Your task to perform on an android device: Search for sony triple a on newegg.com, select the first entry, and add it to the cart. Image 0: 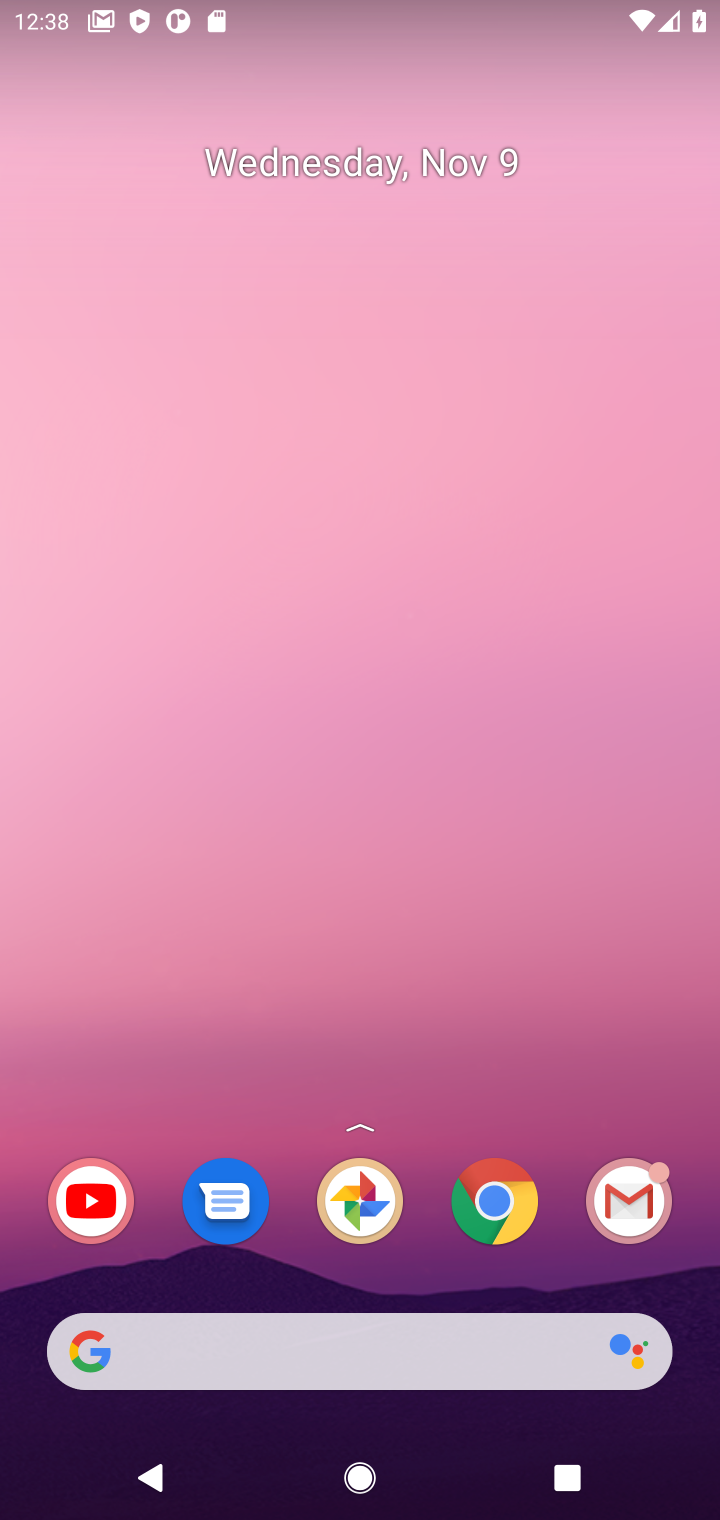
Step 0: click (339, 1346)
Your task to perform on an android device: Search for sony triple a on newegg.com, select the first entry, and add it to the cart. Image 1: 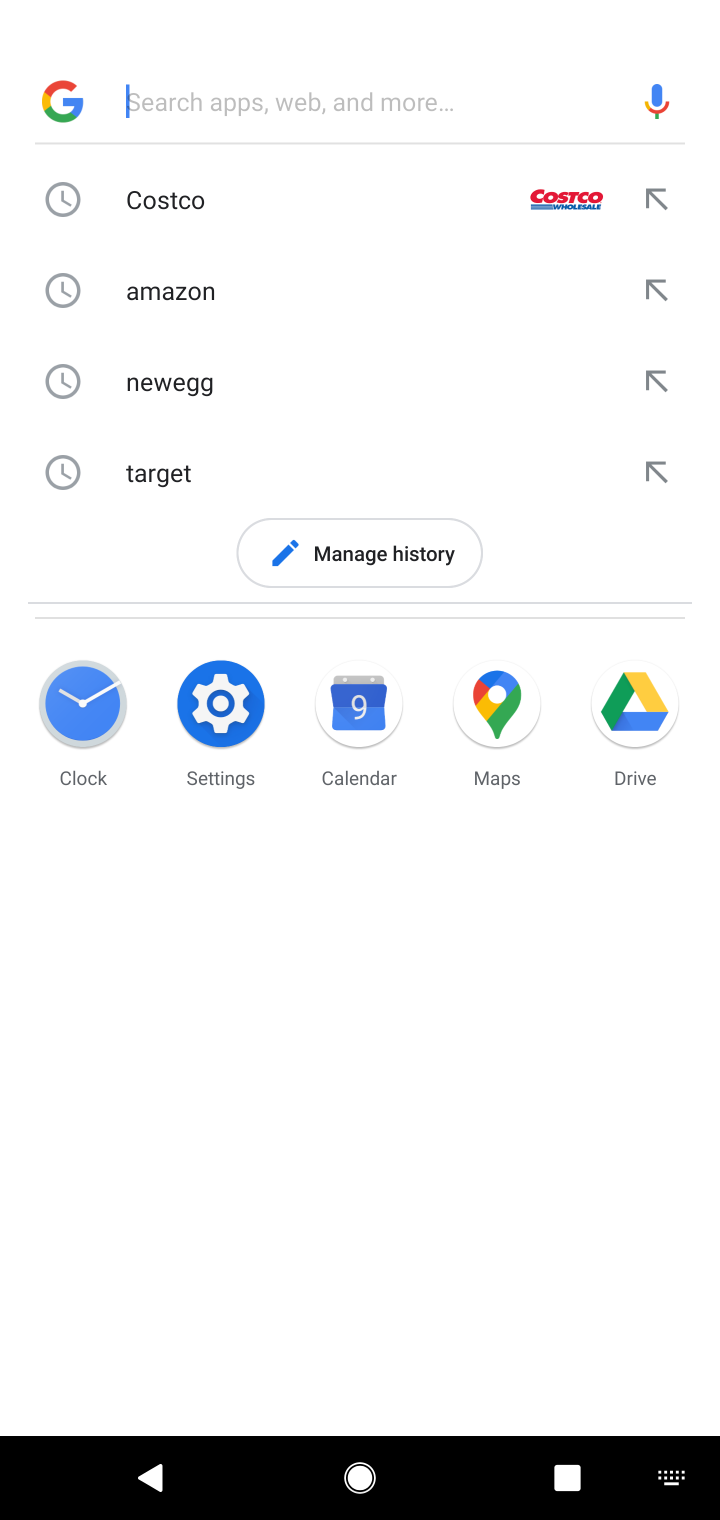
Step 1: type "newegg.com"
Your task to perform on an android device: Search for sony triple a on newegg.com, select the first entry, and add it to the cart. Image 2: 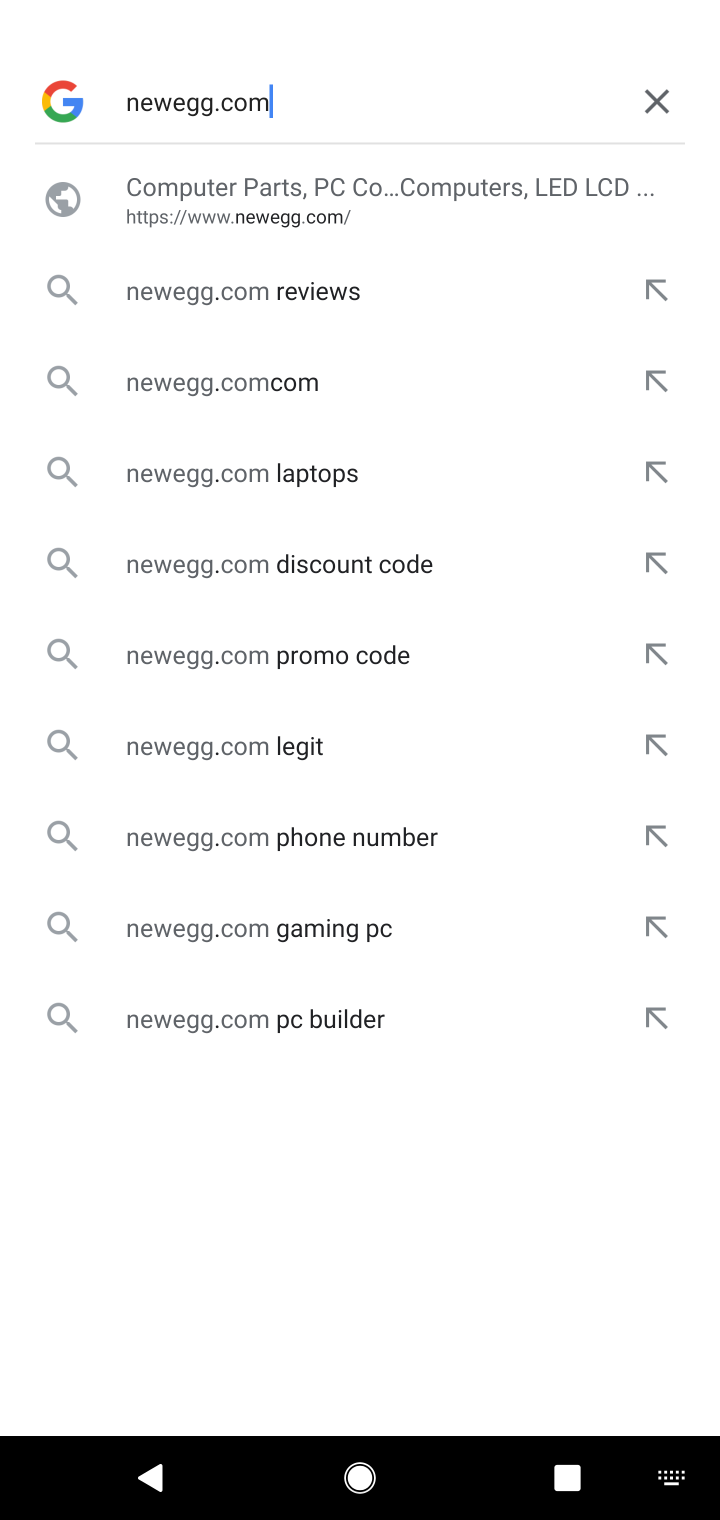
Step 2: click (302, 205)
Your task to perform on an android device: Search for sony triple a on newegg.com, select the first entry, and add it to the cart. Image 3: 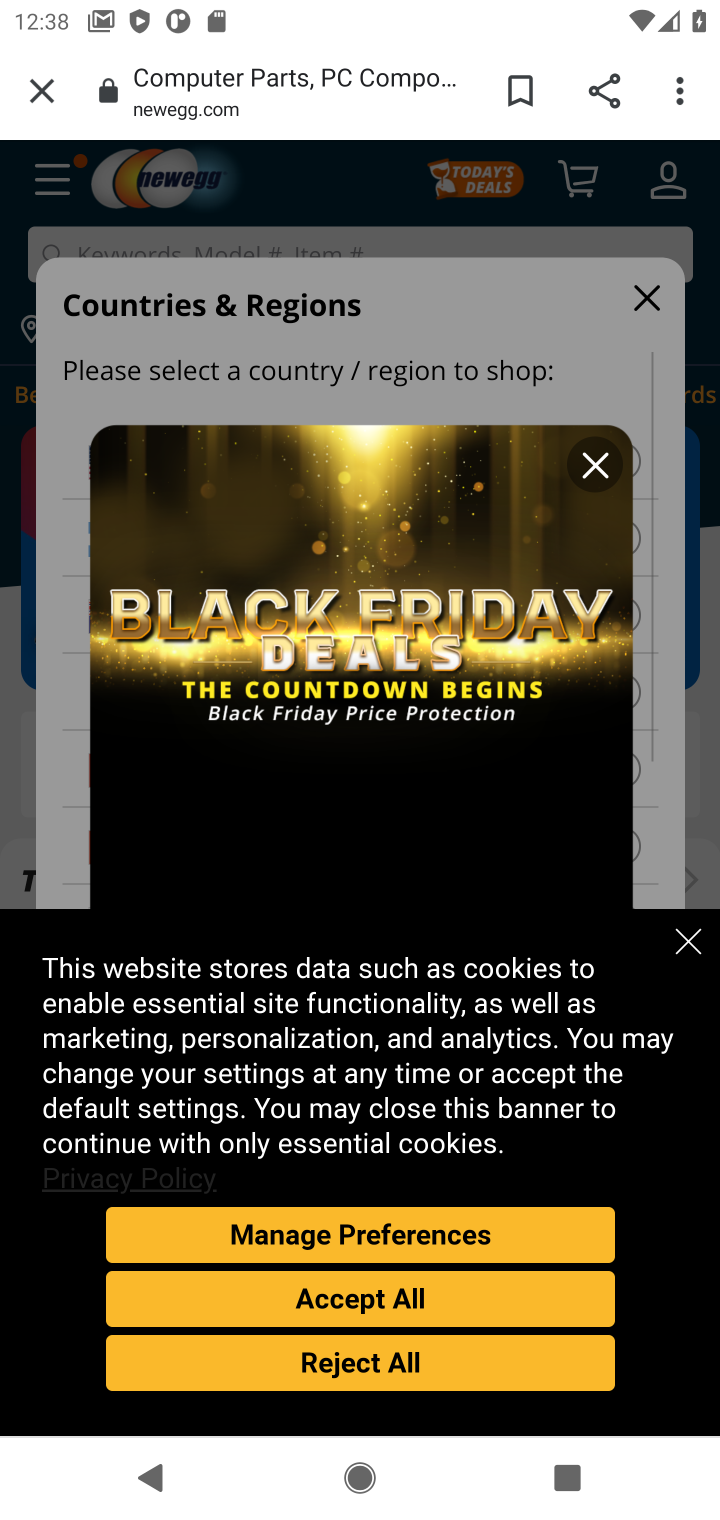
Step 3: click (684, 936)
Your task to perform on an android device: Search for sony triple a on newegg.com, select the first entry, and add it to the cart. Image 4: 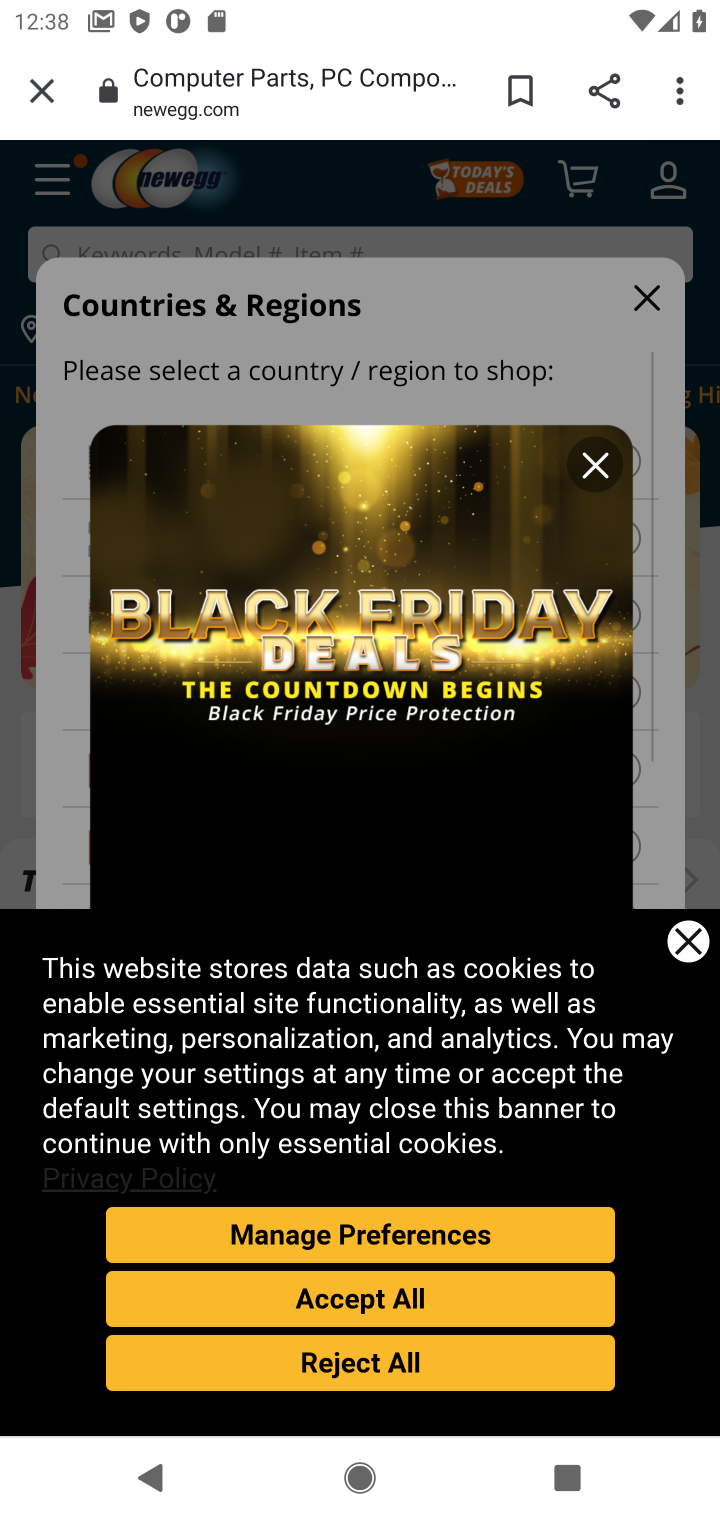
Step 4: click (645, 305)
Your task to perform on an android device: Search for sony triple a on newegg.com, select the first entry, and add it to the cart. Image 5: 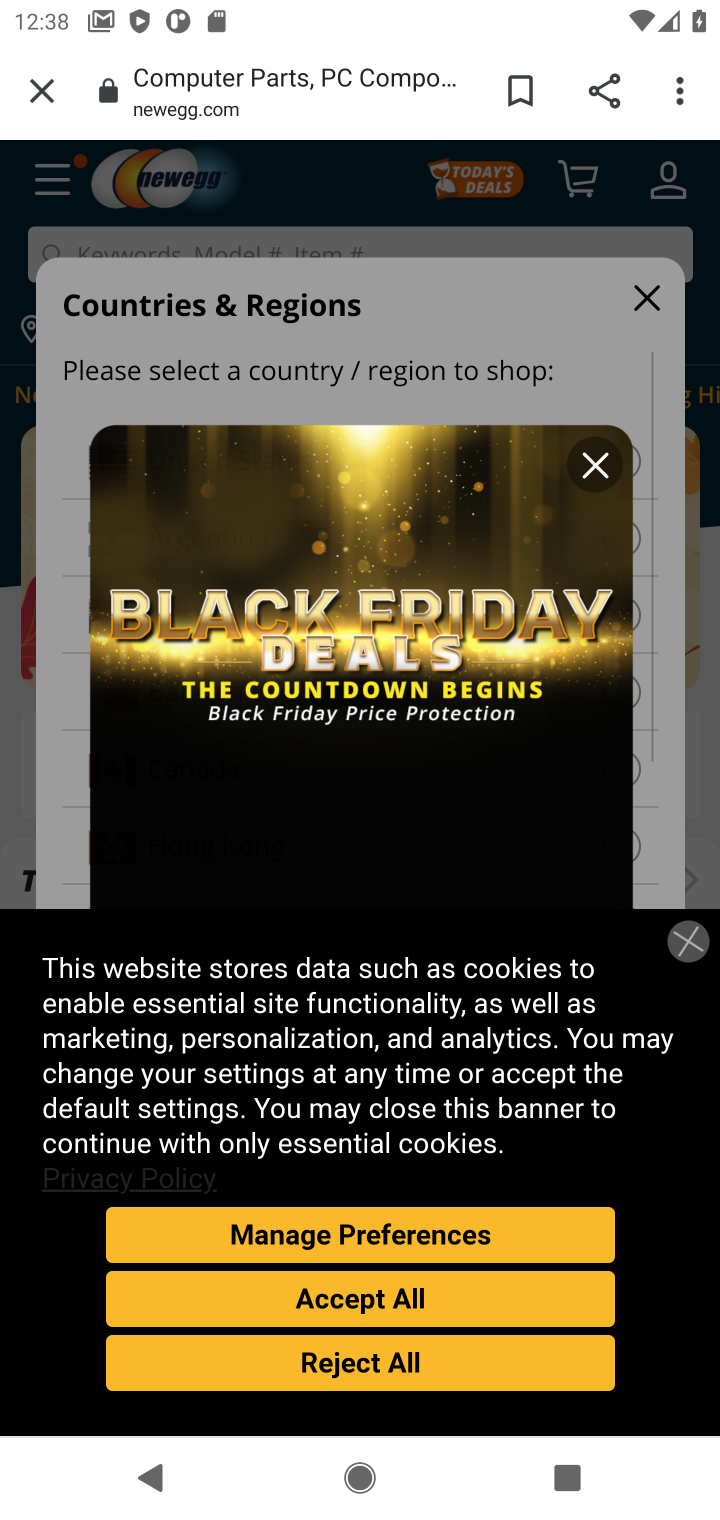
Step 5: click (700, 938)
Your task to perform on an android device: Search for sony triple a on newegg.com, select the first entry, and add it to the cart. Image 6: 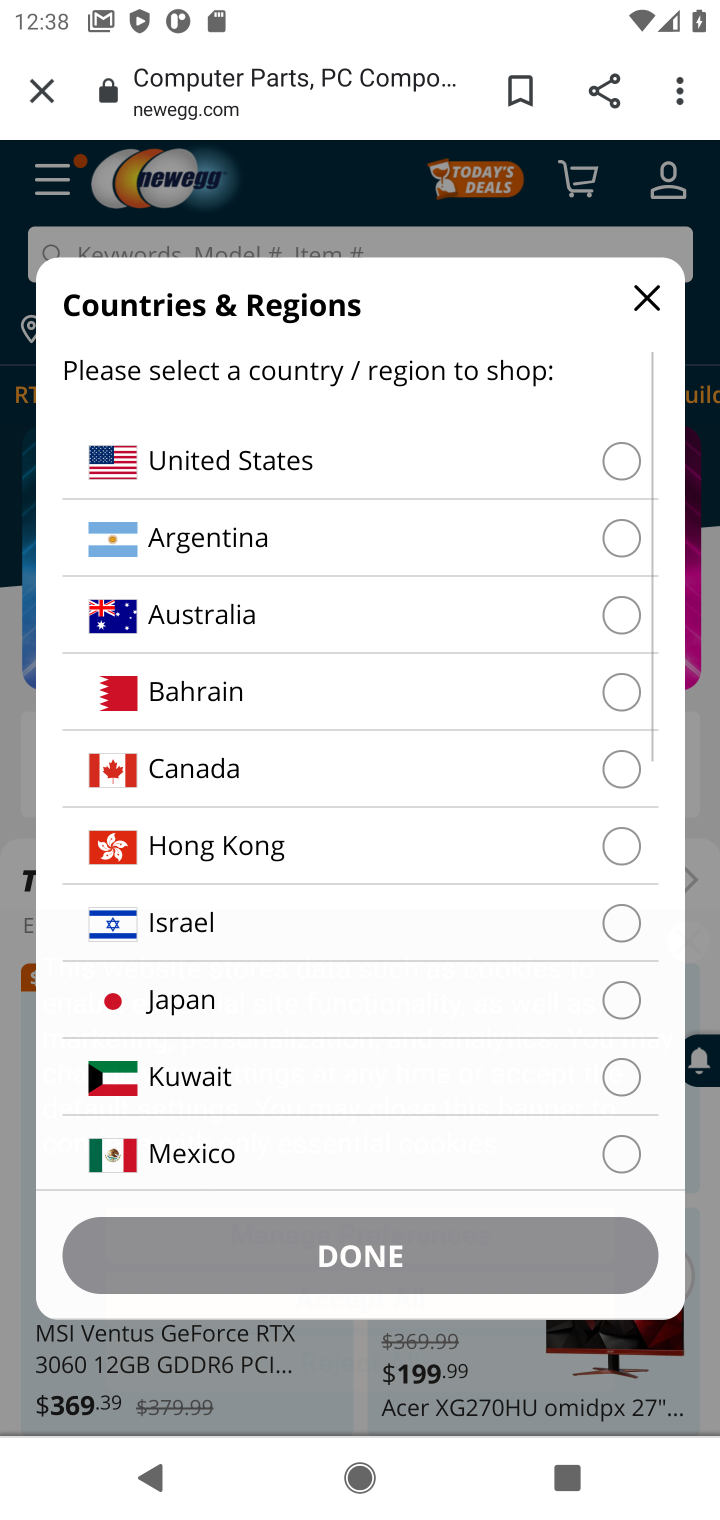
Step 6: click (694, 938)
Your task to perform on an android device: Search for sony triple a on newegg.com, select the first entry, and add it to the cart. Image 7: 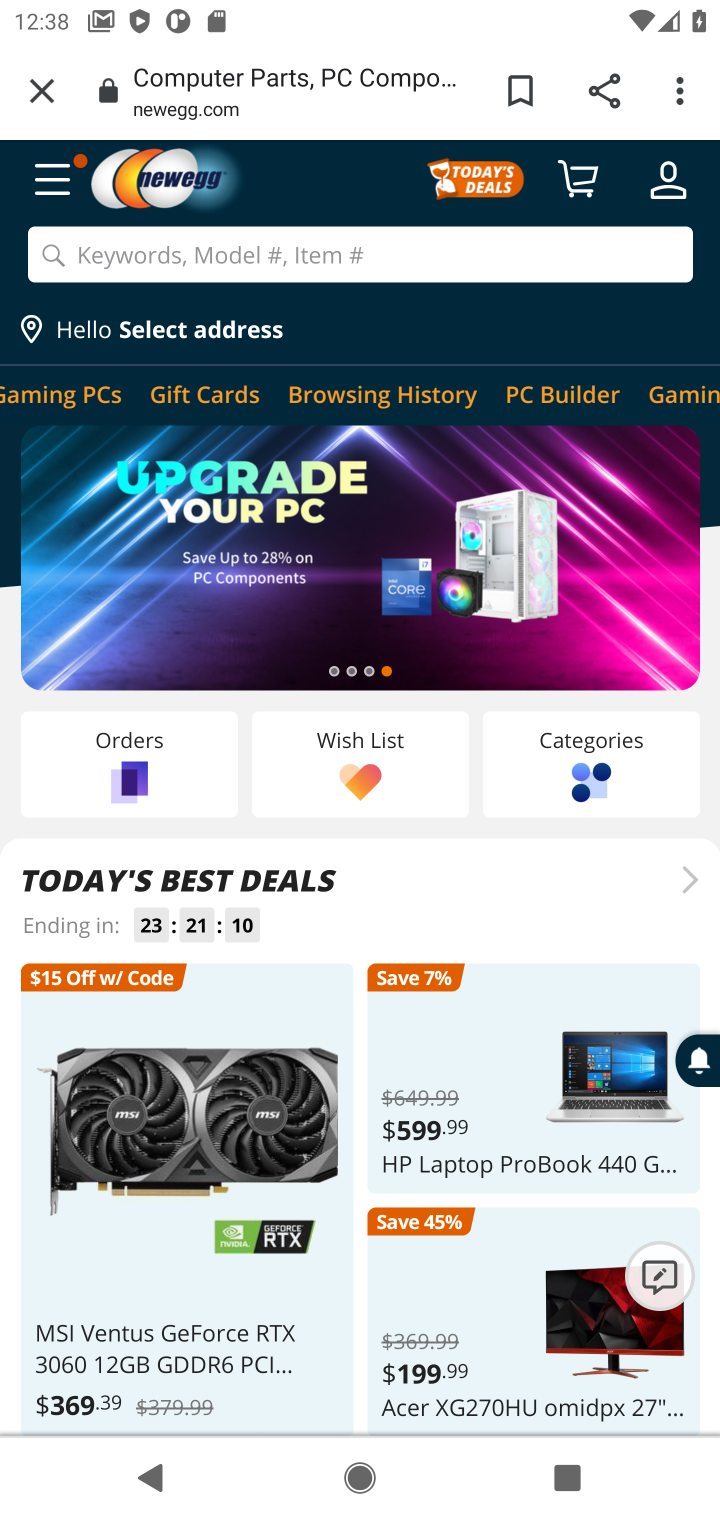
Step 7: click (615, 471)
Your task to perform on an android device: Search for sony triple a on newegg.com, select the first entry, and add it to the cart. Image 8: 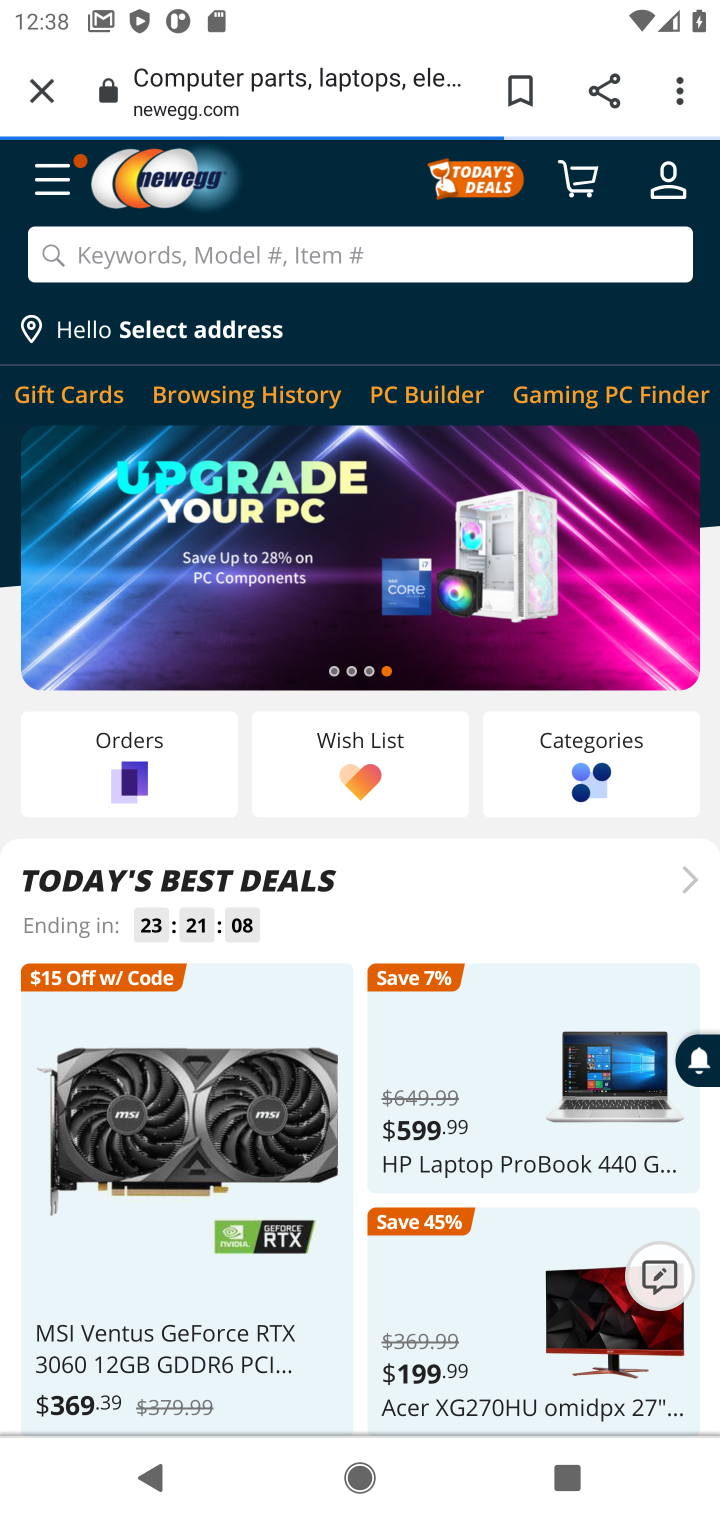
Step 8: click (413, 252)
Your task to perform on an android device: Search for sony triple a on newegg.com, select the first entry, and add it to the cart. Image 9: 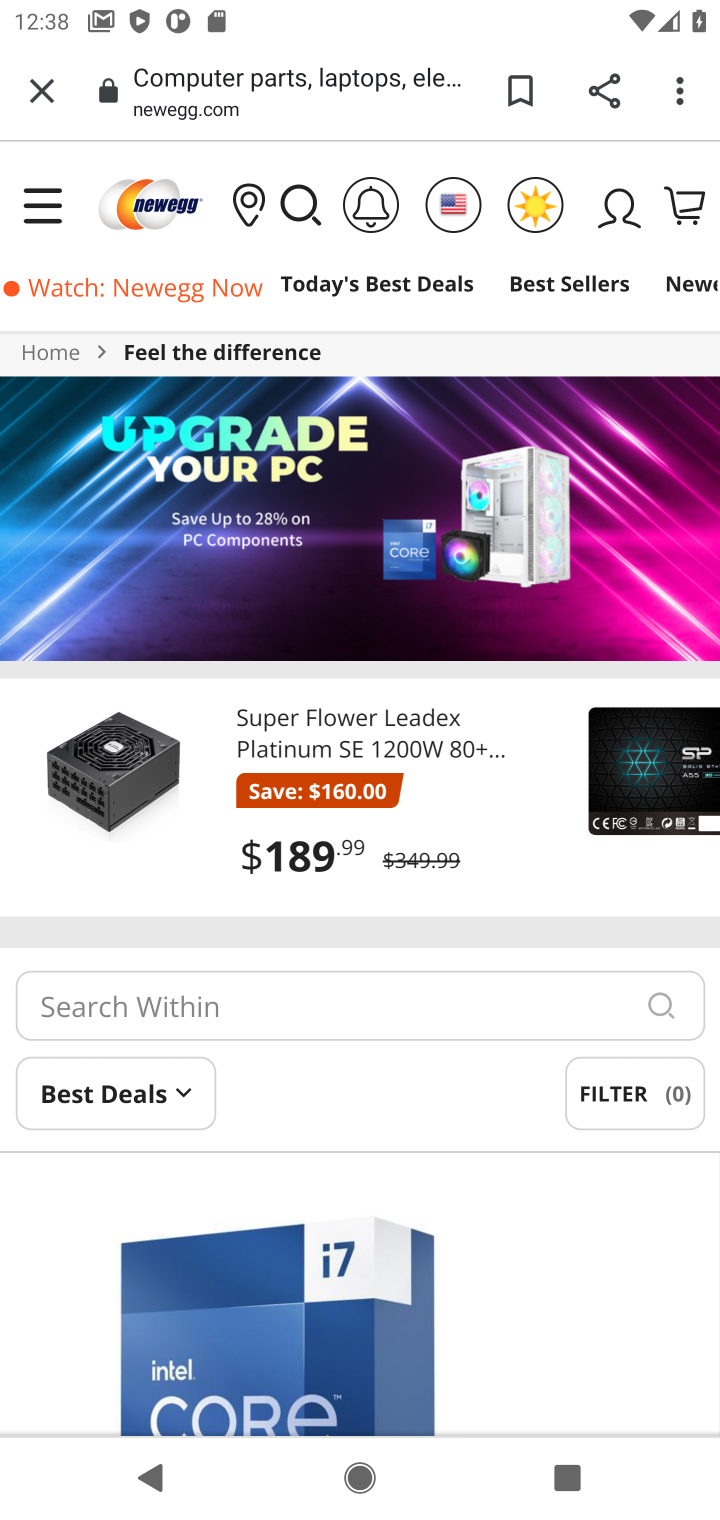
Step 9: click (351, 198)
Your task to perform on an android device: Search for sony triple a on newegg.com, select the first entry, and add it to the cart. Image 10: 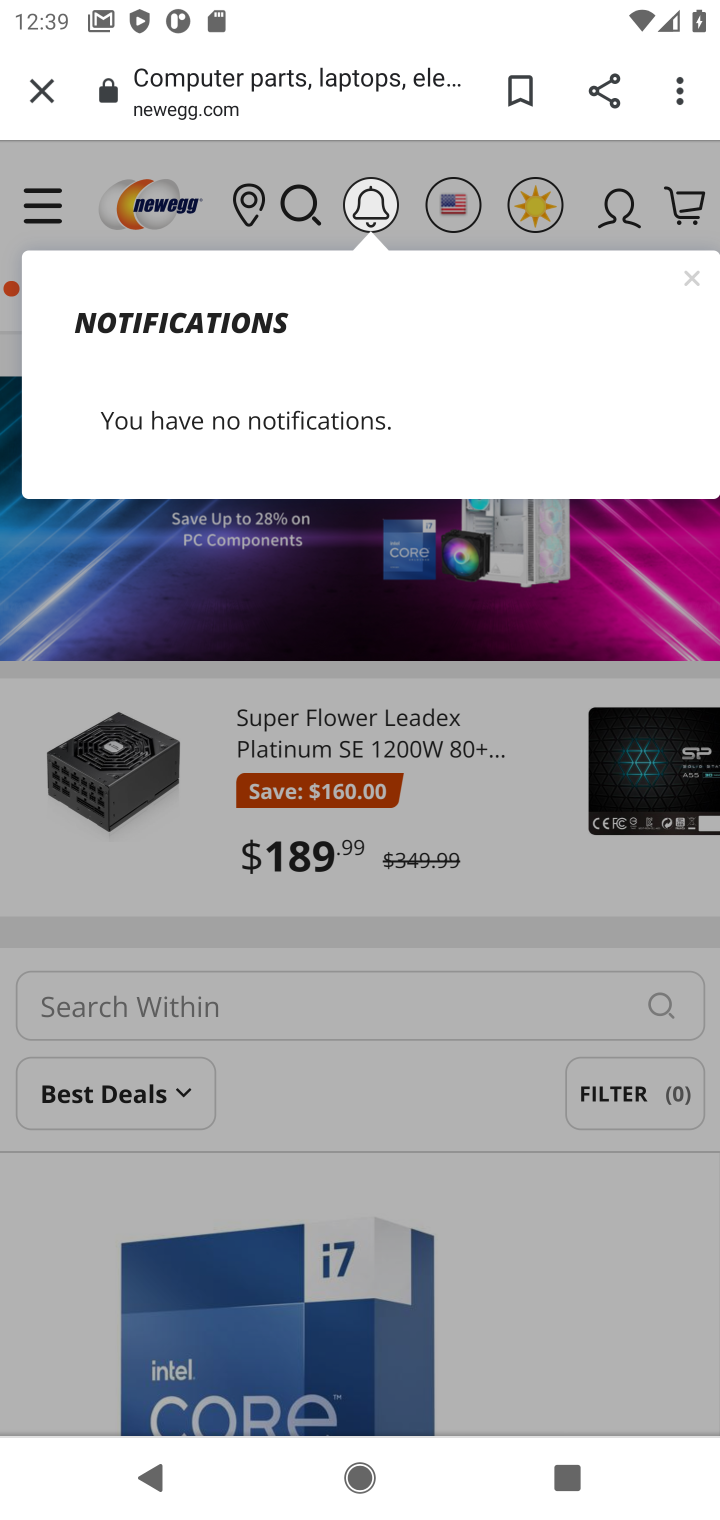
Step 10: click (700, 282)
Your task to perform on an android device: Search for sony triple a on newegg.com, select the first entry, and add it to the cart. Image 11: 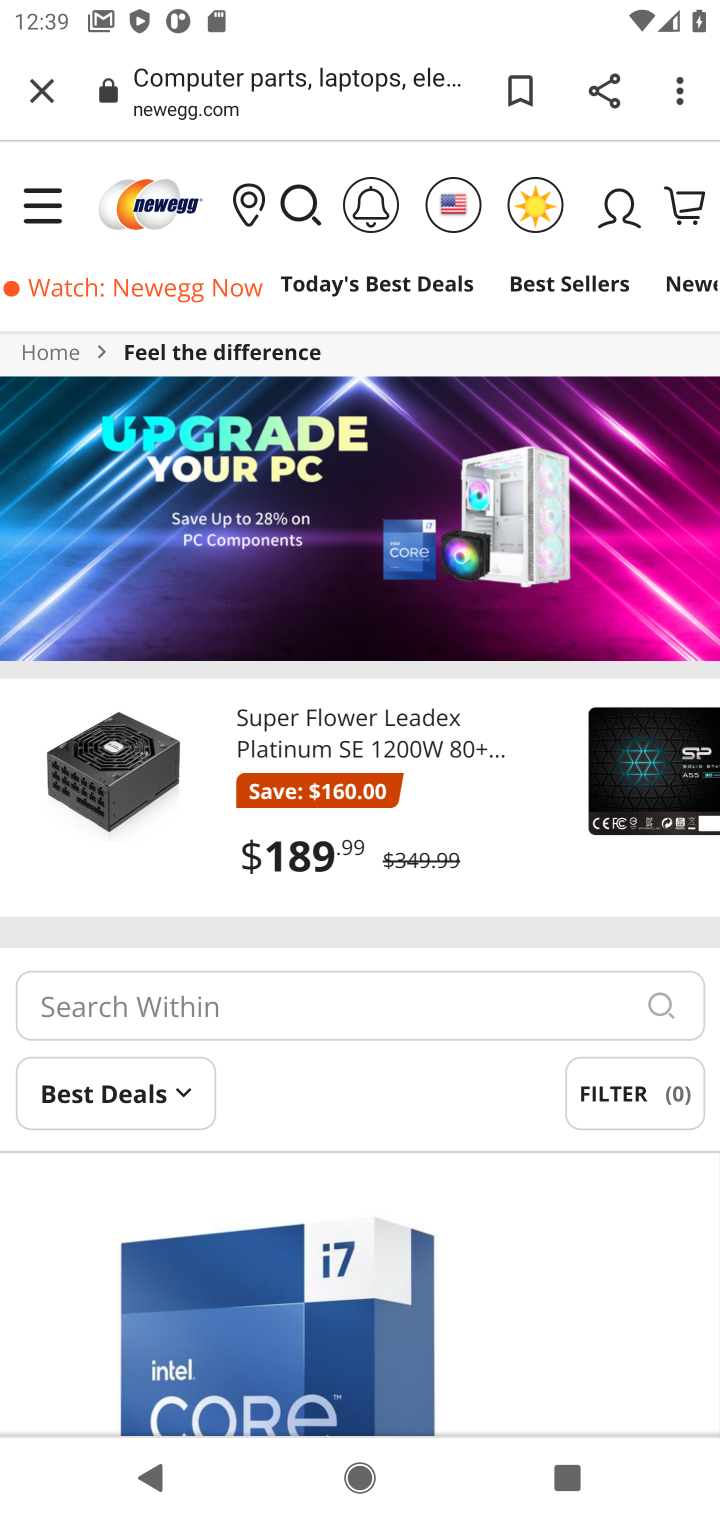
Step 11: click (302, 217)
Your task to perform on an android device: Search for sony triple a on newegg.com, select the first entry, and add it to the cart. Image 12: 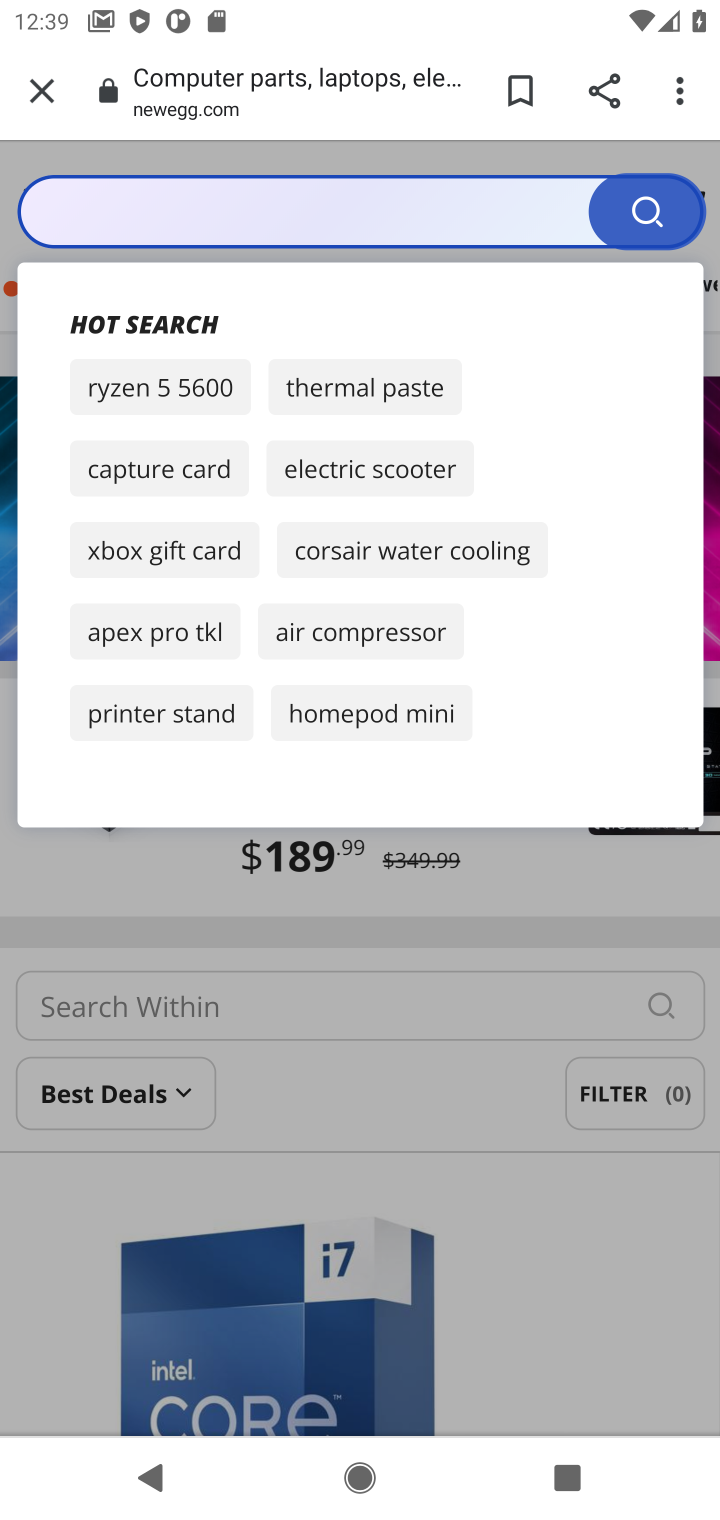
Step 12: click (269, 210)
Your task to perform on an android device: Search for sony triple a on newegg.com, select the first entry, and add it to the cart. Image 13: 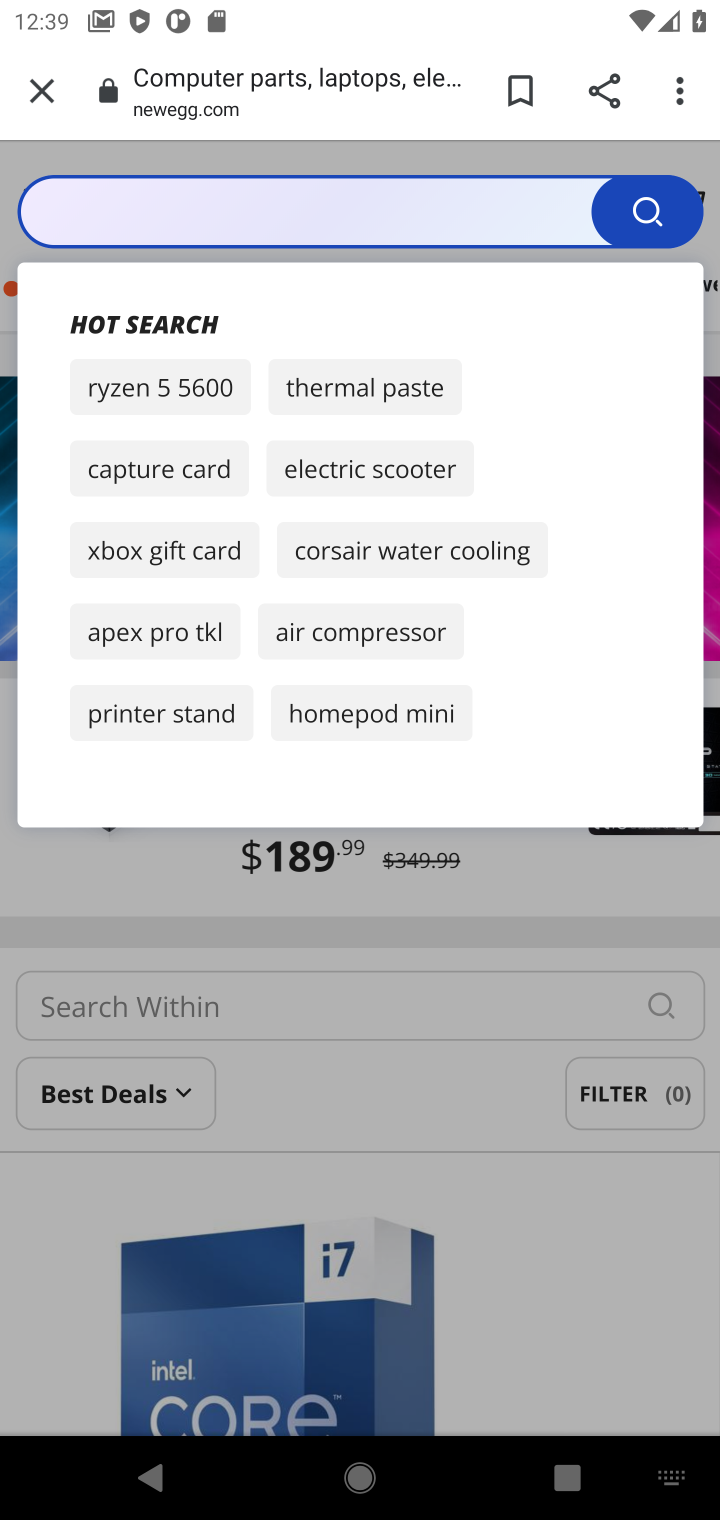
Step 13: type "sony triple "
Your task to perform on an android device: Search for sony triple a on newegg.com, select the first entry, and add it to the cart. Image 14: 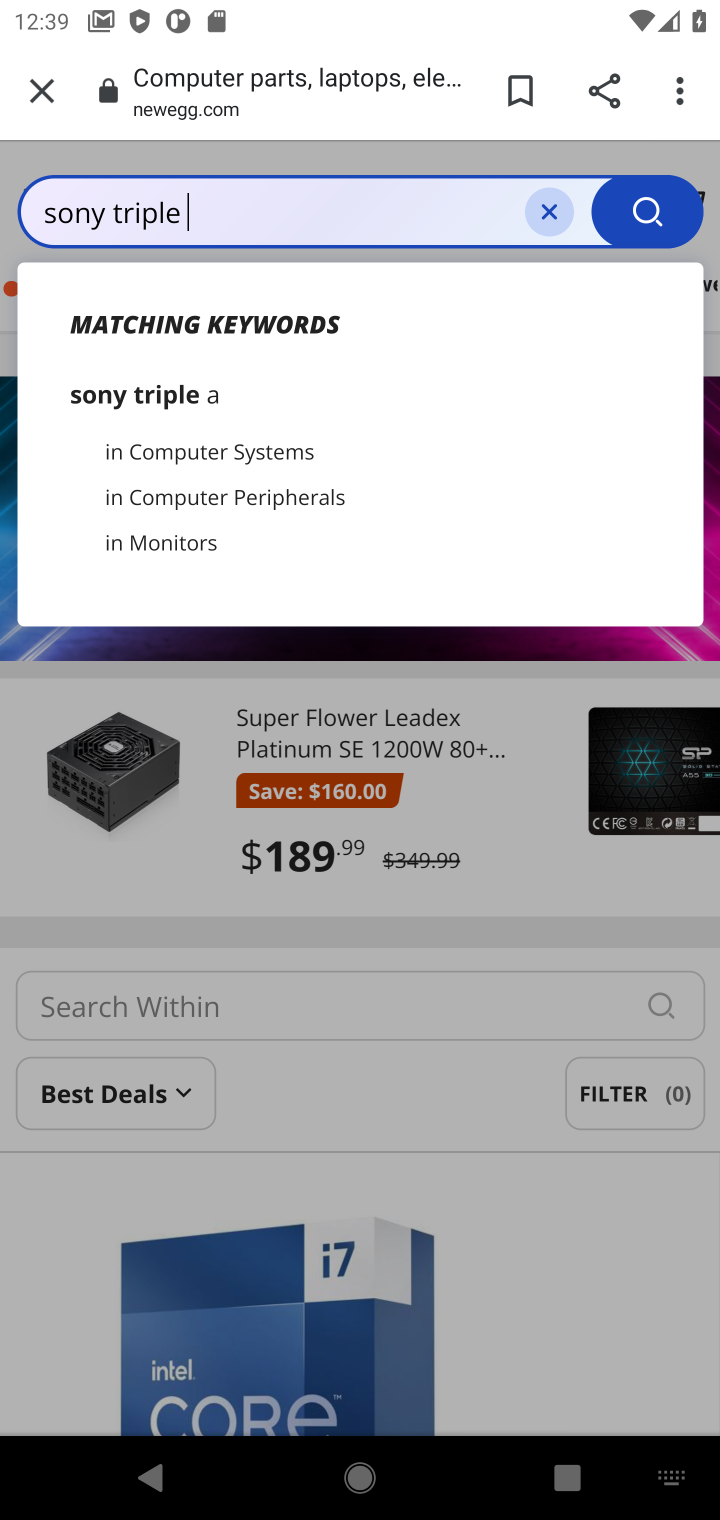
Step 14: click (657, 212)
Your task to perform on an android device: Search for sony triple a on newegg.com, select the first entry, and add it to the cart. Image 15: 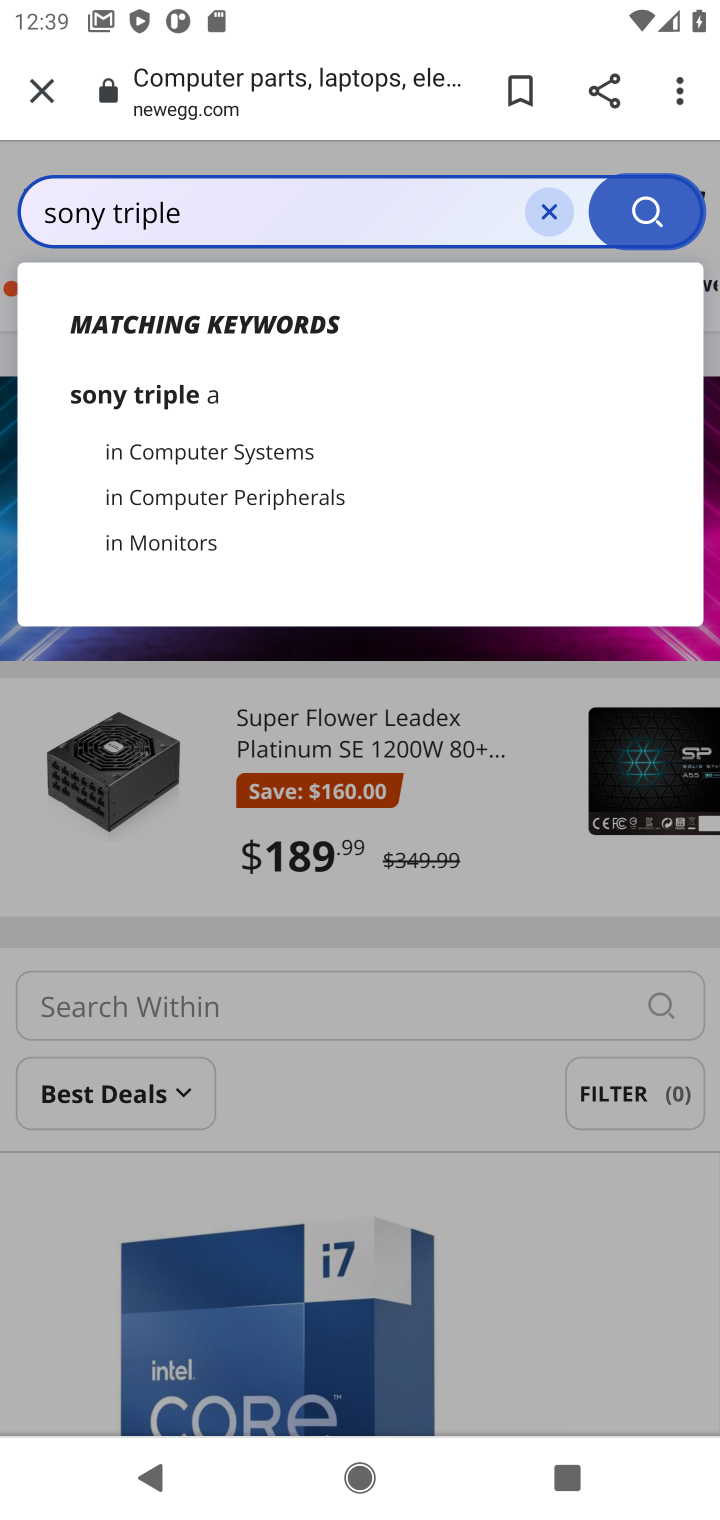
Step 15: click (657, 212)
Your task to perform on an android device: Search for sony triple a on newegg.com, select the first entry, and add it to the cart. Image 16: 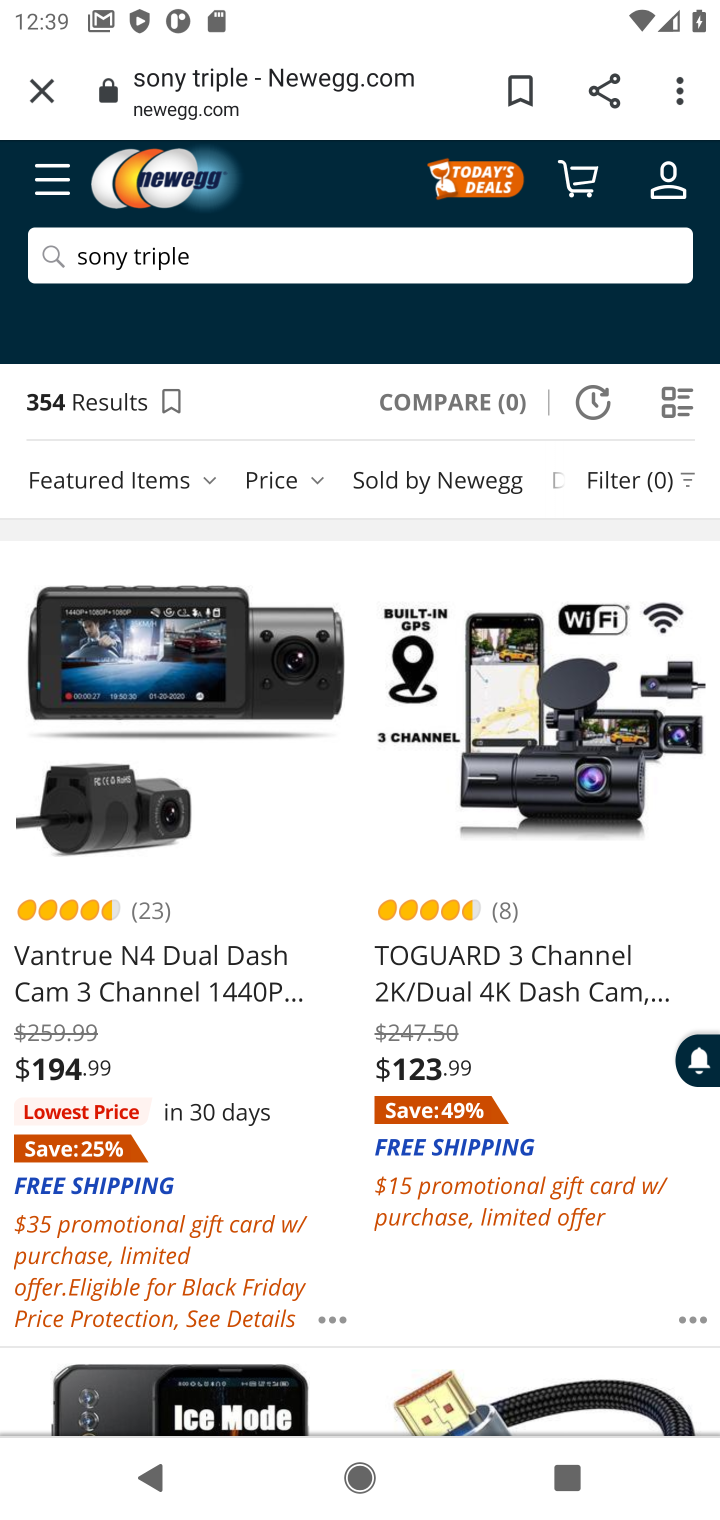
Step 16: click (134, 699)
Your task to perform on an android device: Search for sony triple a on newegg.com, select the first entry, and add it to the cart. Image 17: 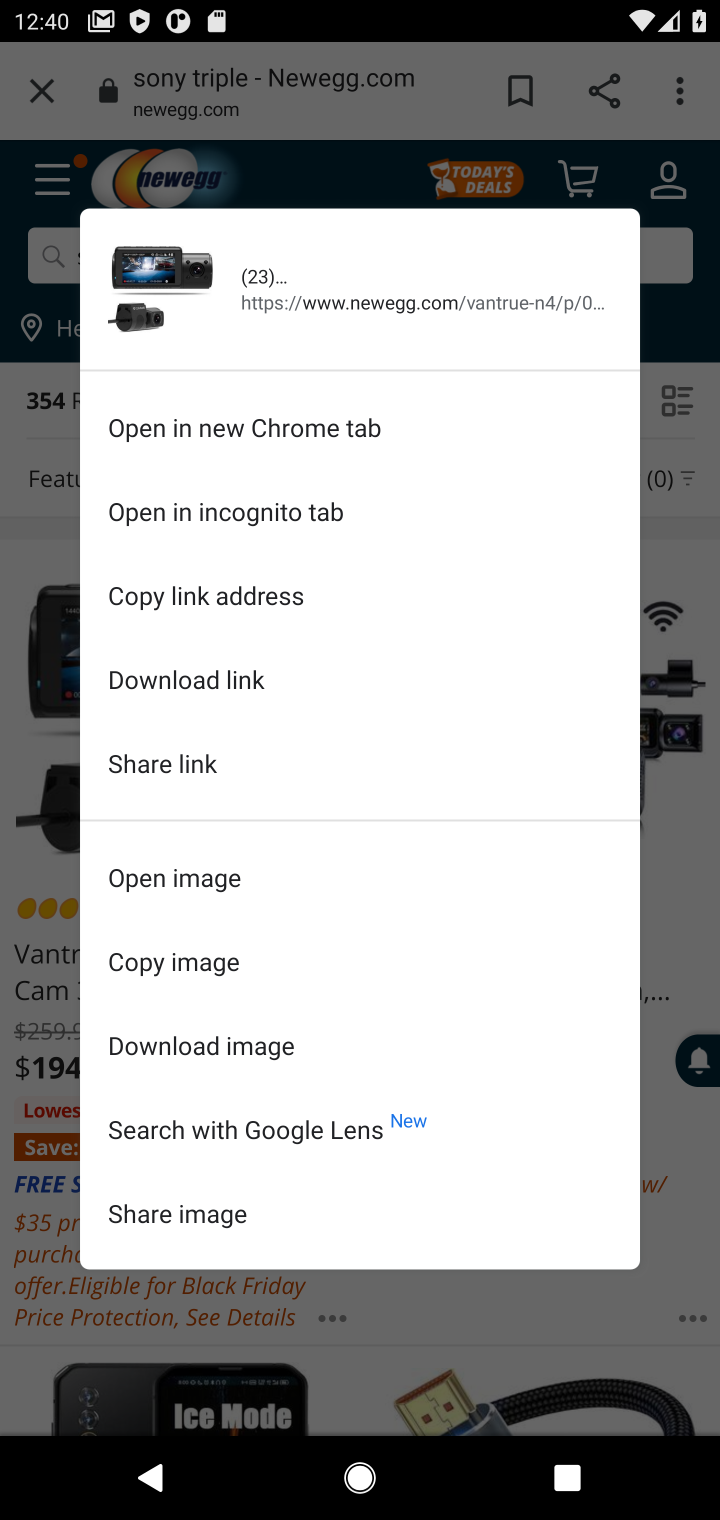
Step 17: click (713, 584)
Your task to perform on an android device: Search for sony triple a on newegg.com, select the first entry, and add it to the cart. Image 18: 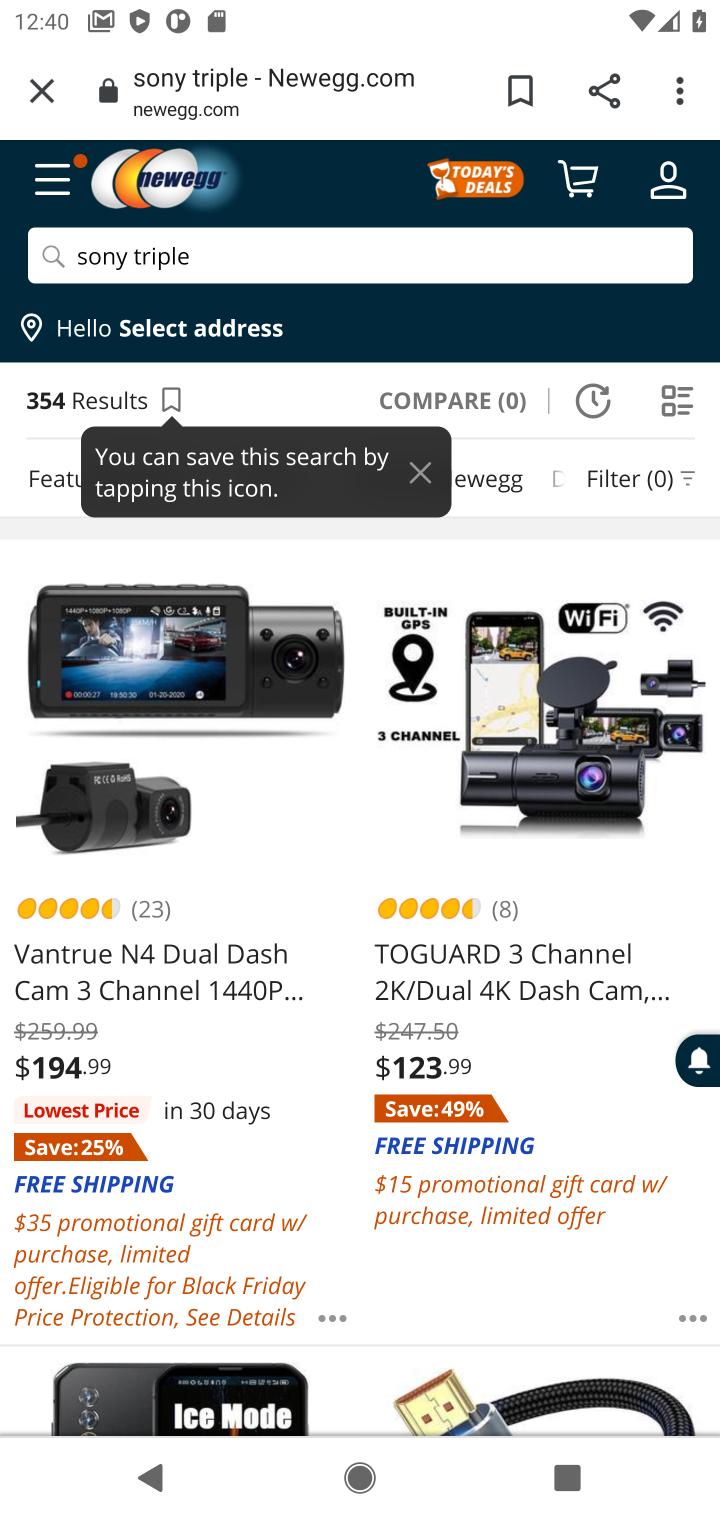
Step 18: click (69, 889)
Your task to perform on an android device: Search for sony triple a on newegg.com, select the first entry, and add it to the cart. Image 19: 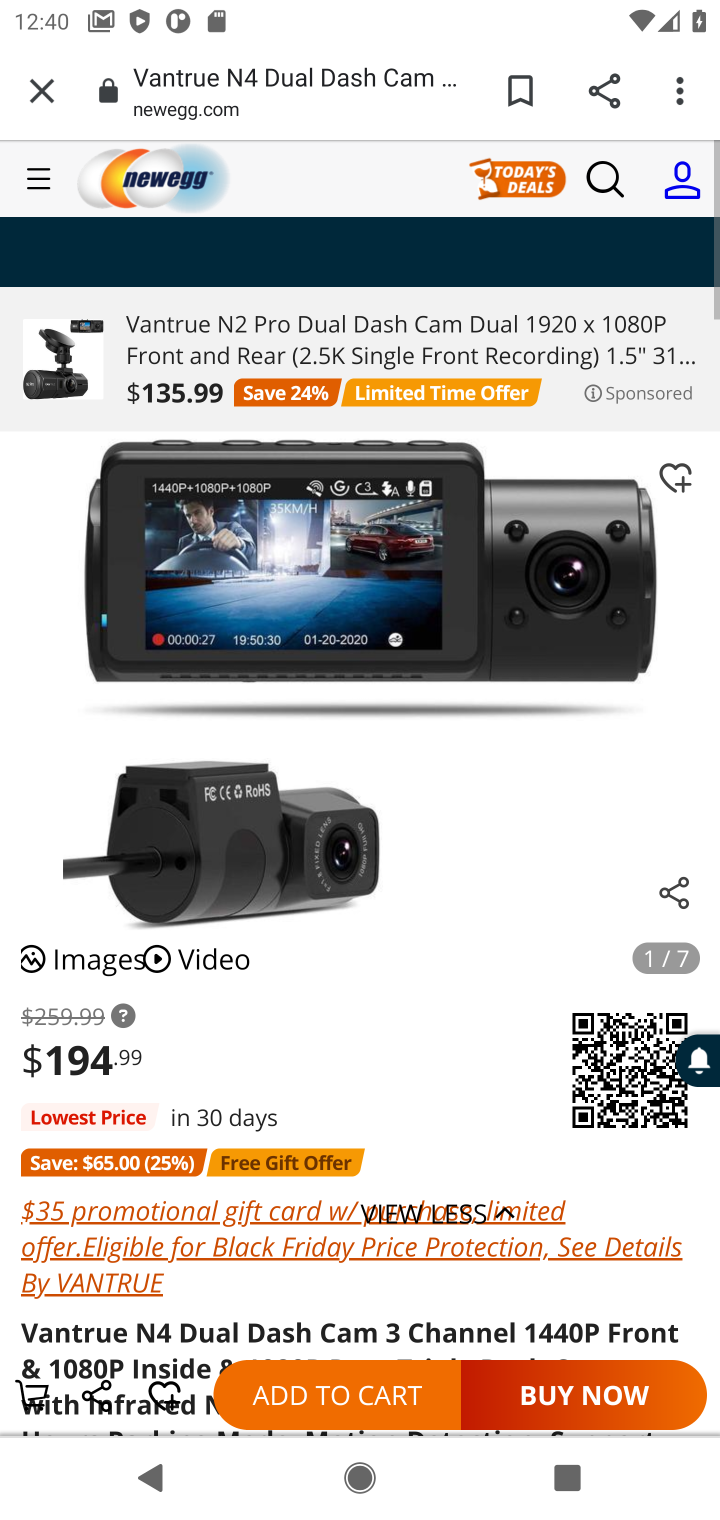
Step 19: click (147, 663)
Your task to perform on an android device: Search for sony triple a on newegg.com, select the first entry, and add it to the cart. Image 20: 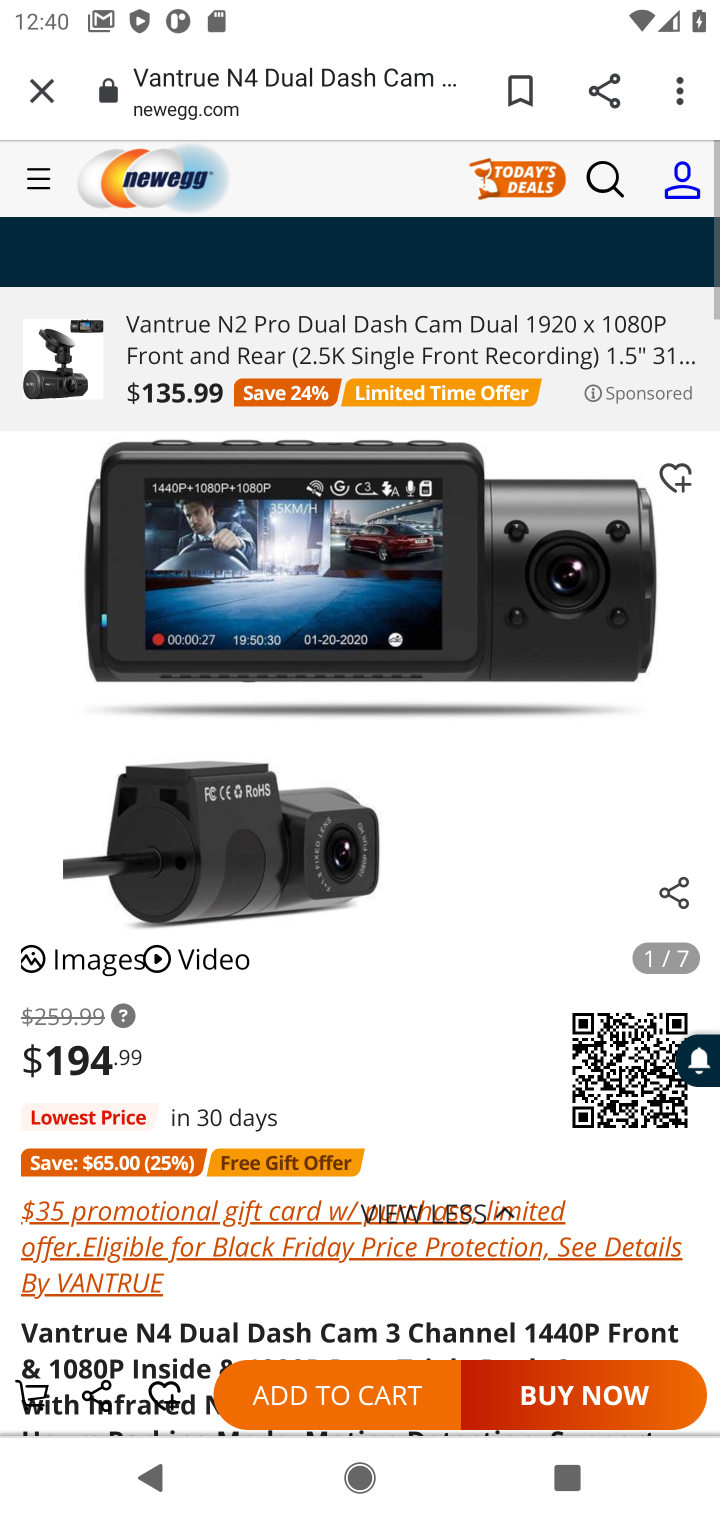
Step 20: click (370, 1403)
Your task to perform on an android device: Search for sony triple a on newegg.com, select the first entry, and add it to the cart. Image 21: 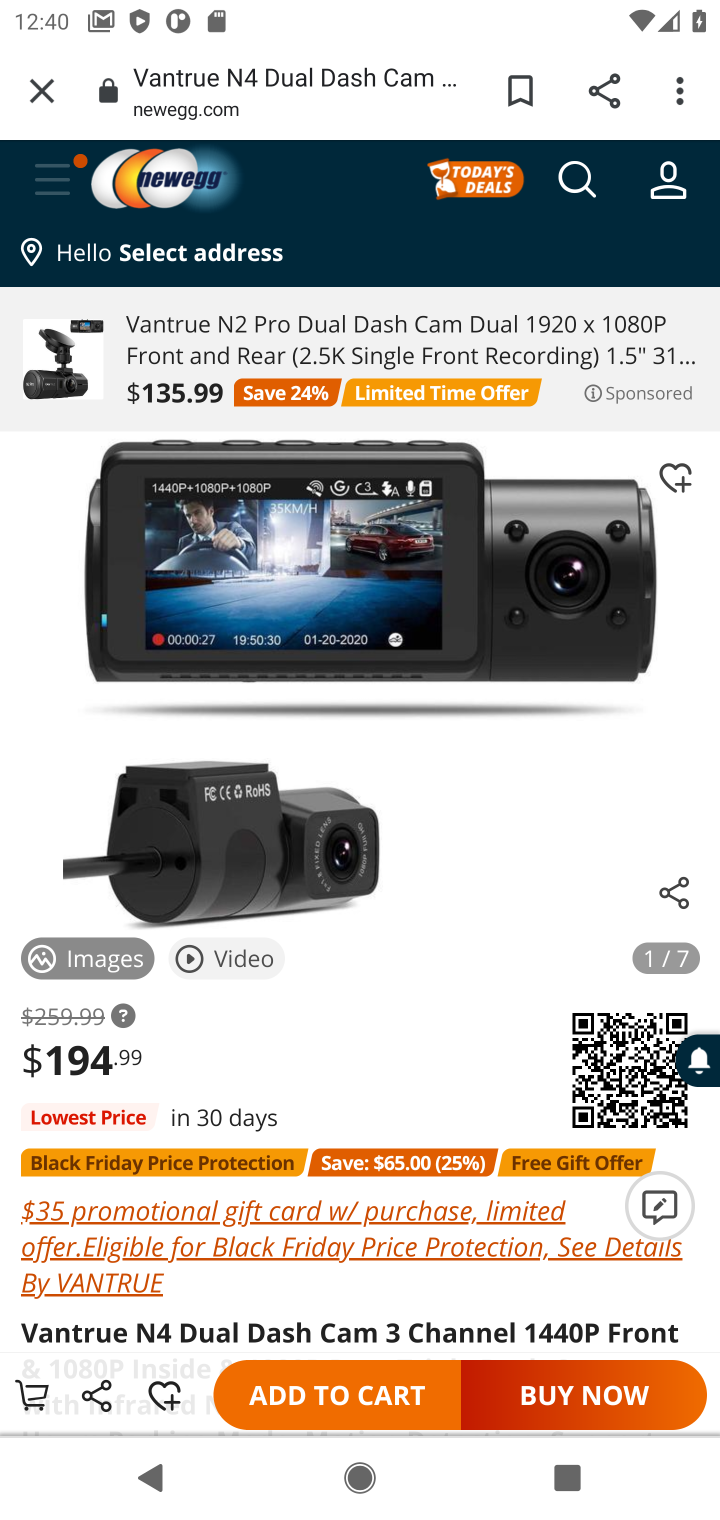
Step 21: task complete